Your task to perform on an android device: Go to notification settings Image 0: 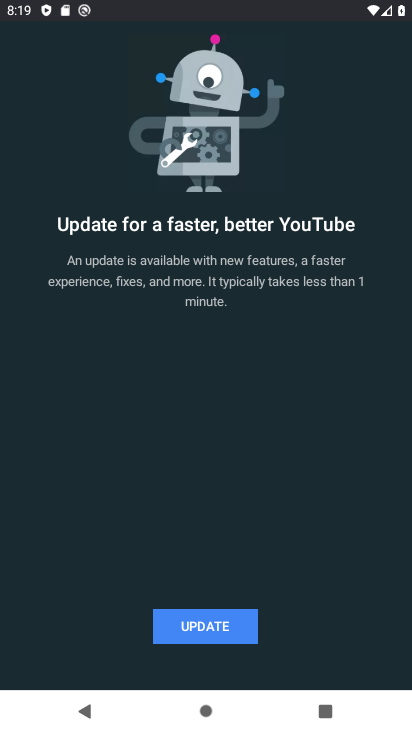
Step 0: press home button
Your task to perform on an android device: Go to notification settings Image 1: 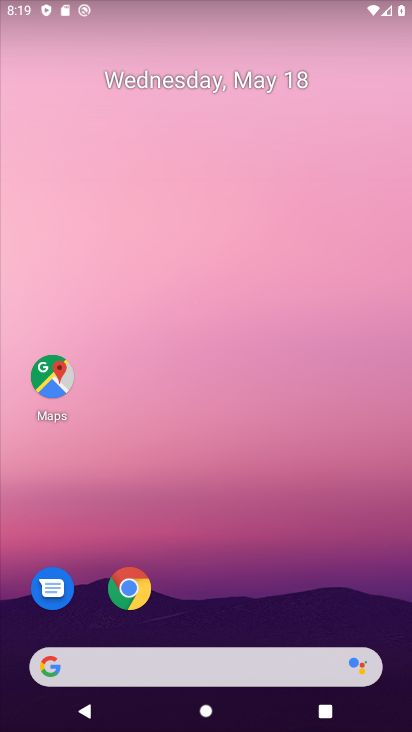
Step 1: drag from (367, 588) to (375, 101)
Your task to perform on an android device: Go to notification settings Image 2: 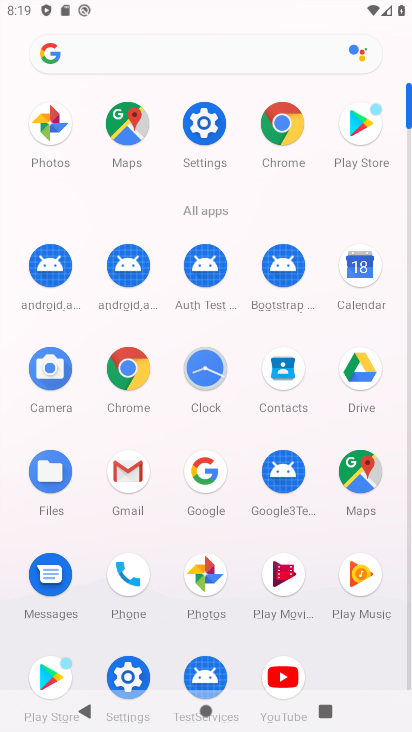
Step 2: click (115, 667)
Your task to perform on an android device: Go to notification settings Image 3: 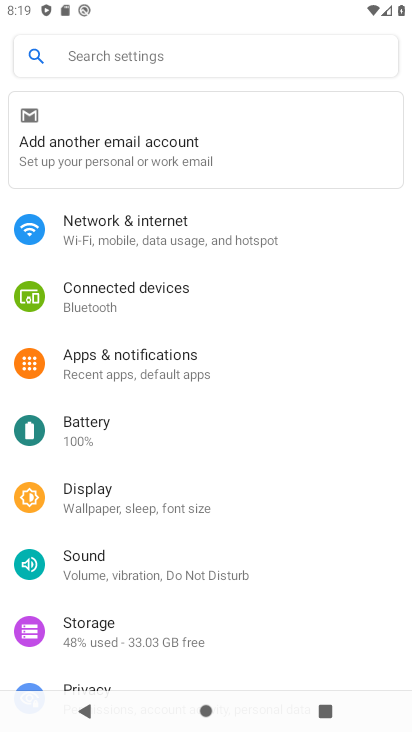
Step 3: click (198, 362)
Your task to perform on an android device: Go to notification settings Image 4: 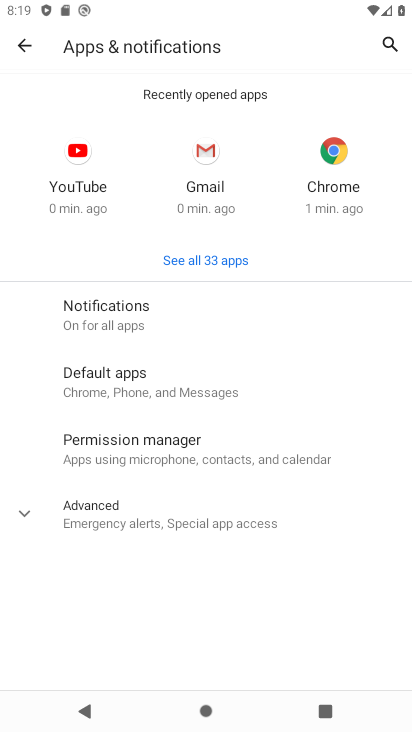
Step 4: click (114, 311)
Your task to perform on an android device: Go to notification settings Image 5: 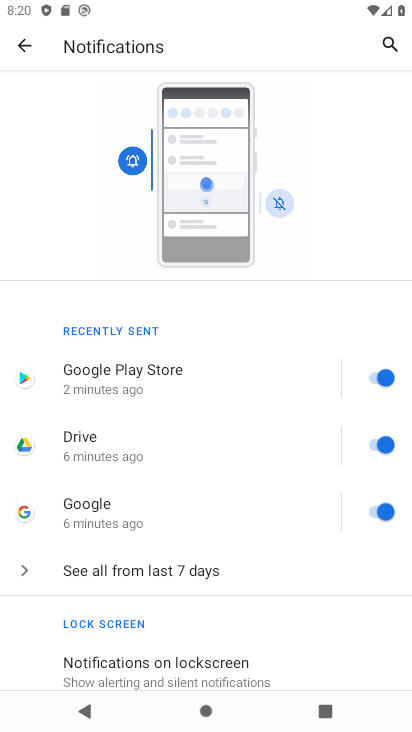
Step 5: task complete